Your task to perform on an android device: Open wifi settings Image 0: 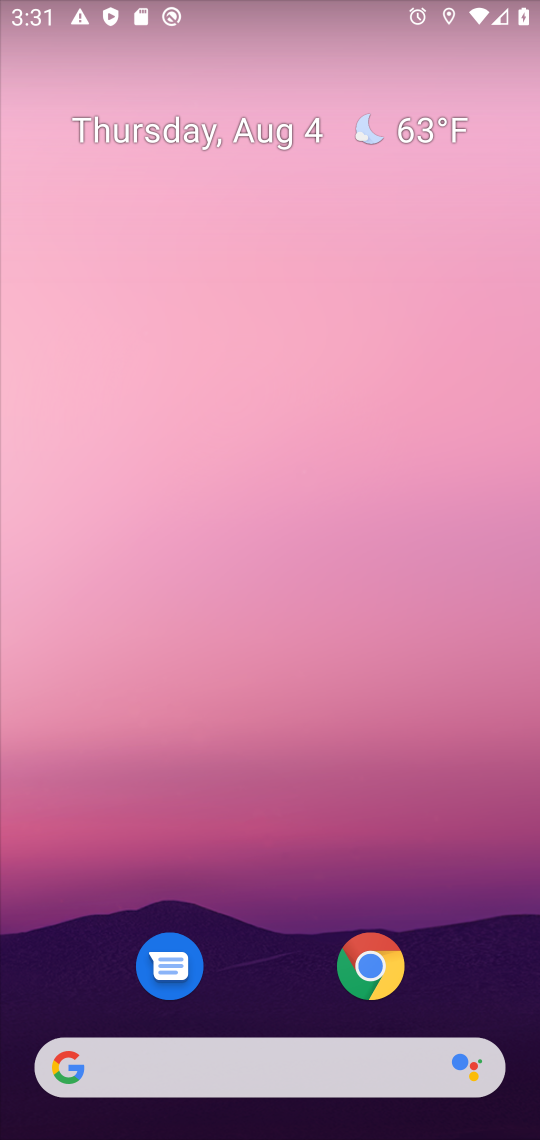
Step 0: press home button
Your task to perform on an android device: Open wifi settings Image 1: 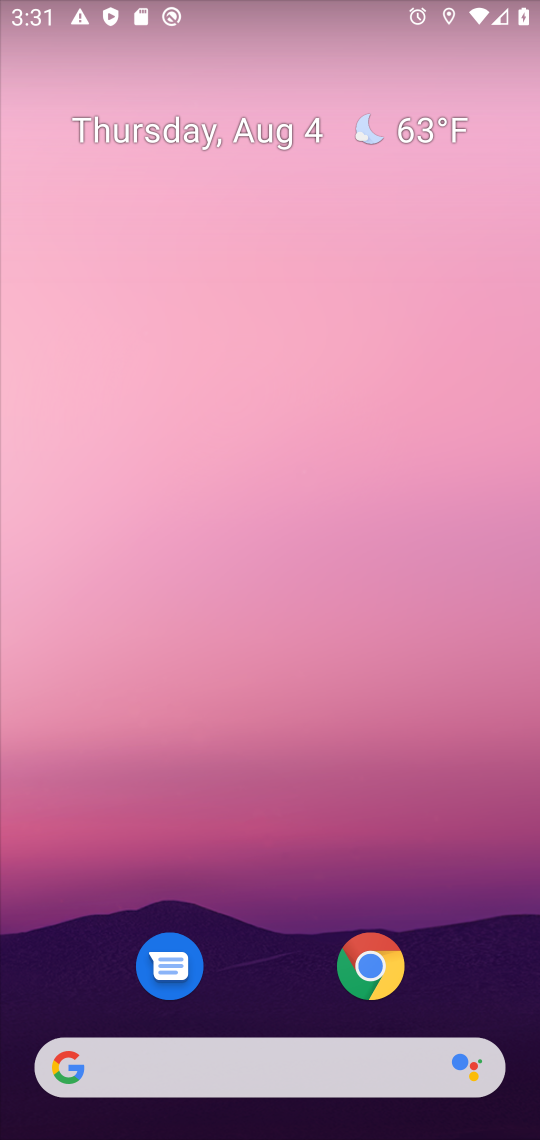
Step 1: drag from (313, 742) to (343, 14)
Your task to perform on an android device: Open wifi settings Image 2: 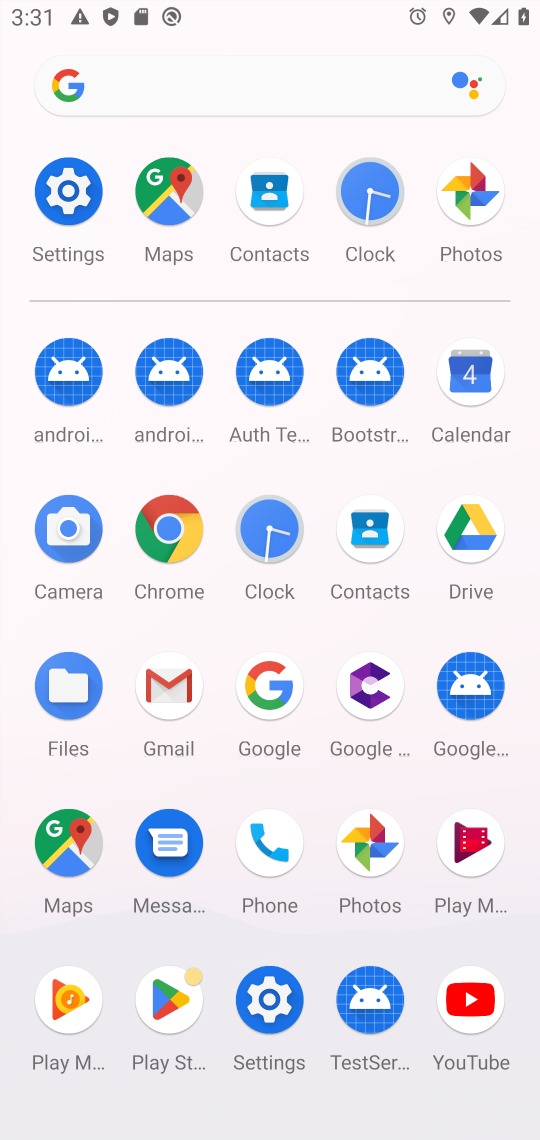
Step 2: click (60, 184)
Your task to perform on an android device: Open wifi settings Image 3: 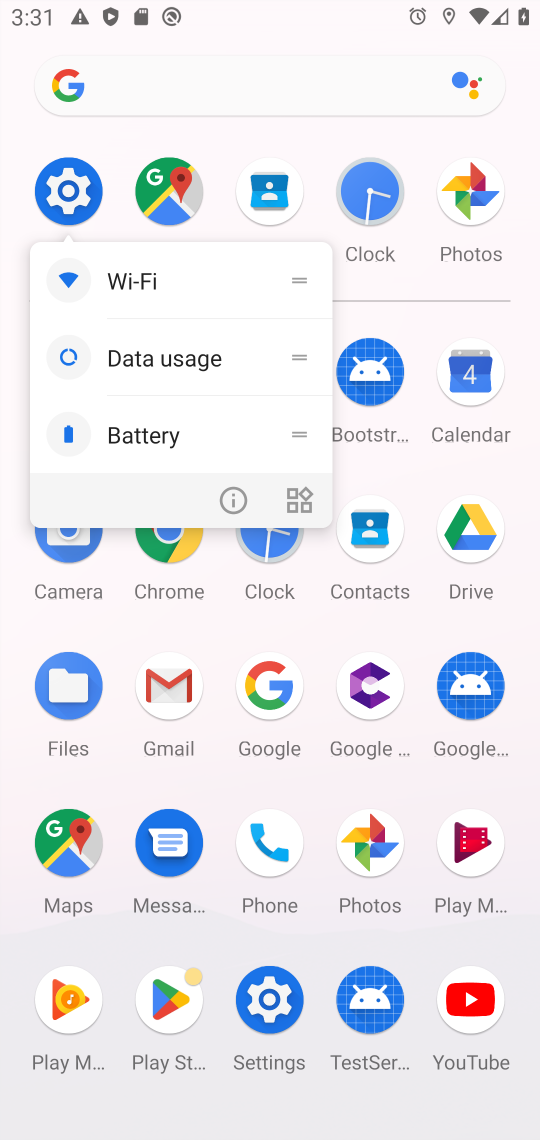
Step 3: click (132, 295)
Your task to perform on an android device: Open wifi settings Image 4: 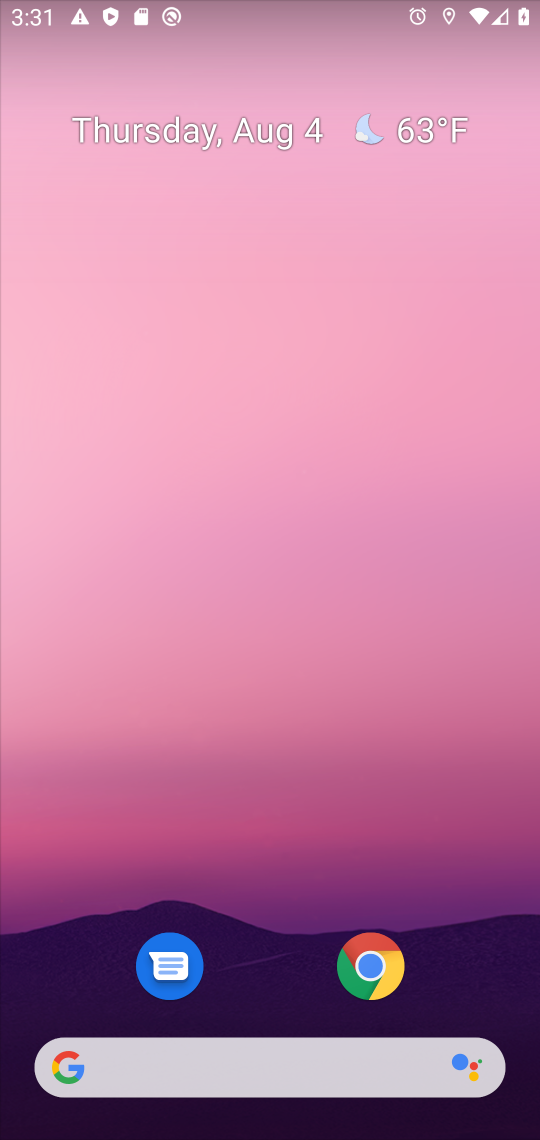
Step 4: drag from (285, 1006) to (326, 16)
Your task to perform on an android device: Open wifi settings Image 5: 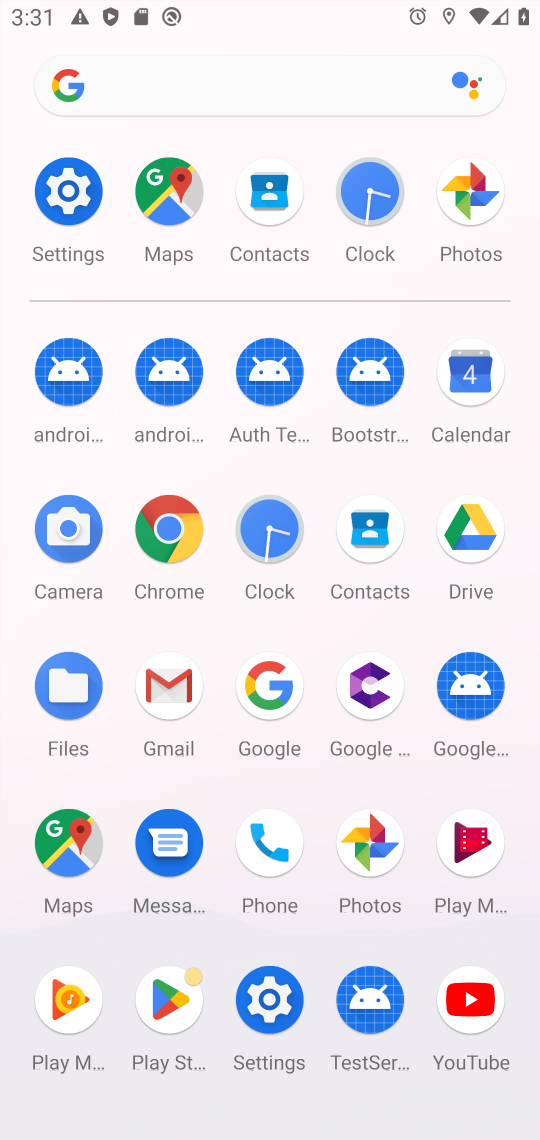
Step 5: click (55, 186)
Your task to perform on an android device: Open wifi settings Image 6: 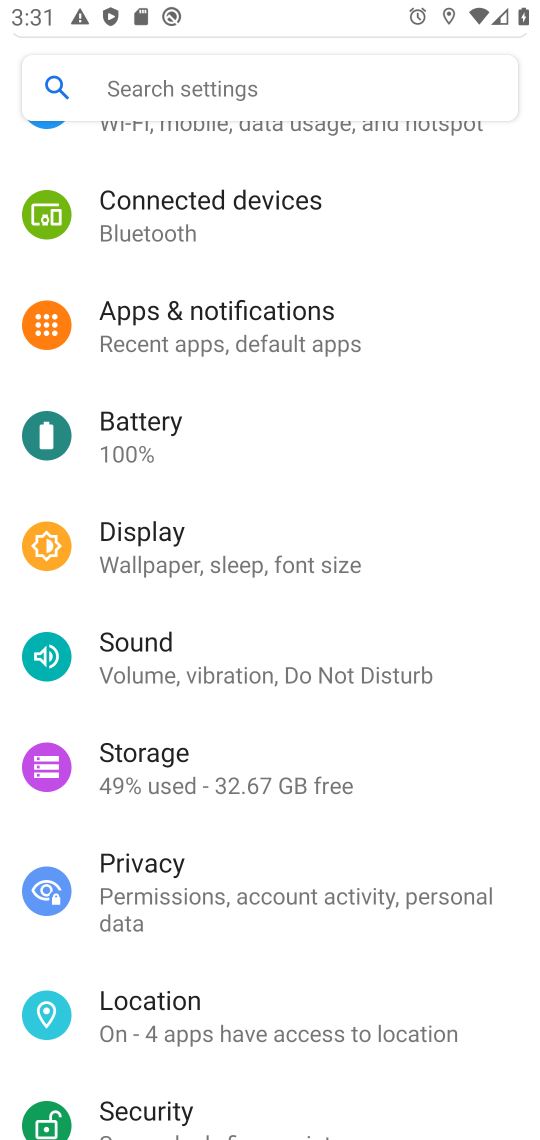
Step 6: click (199, 126)
Your task to perform on an android device: Open wifi settings Image 7: 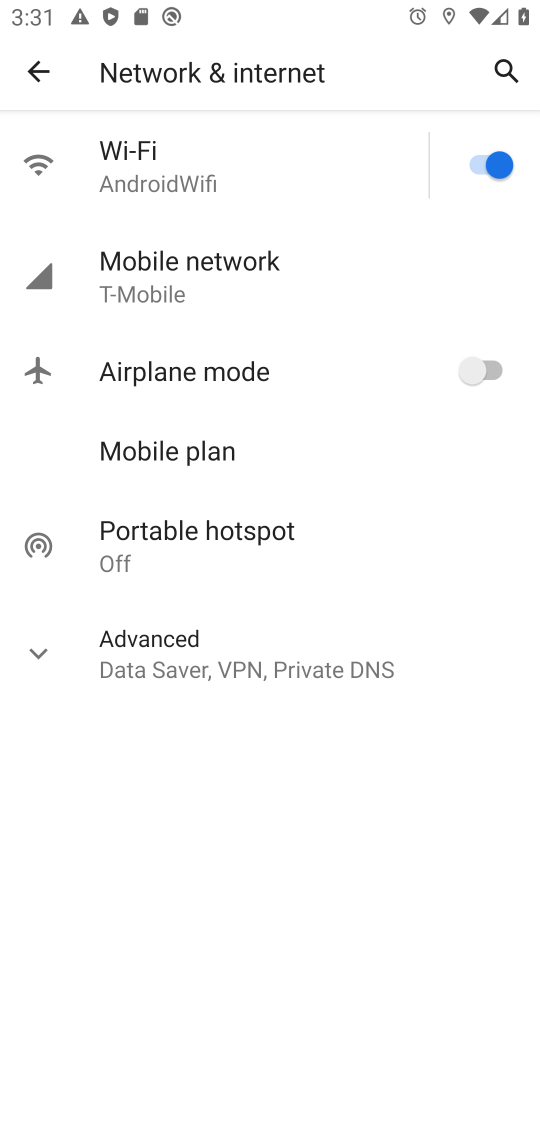
Step 7: click (177, 183)
Your task to perform on an android device: Open wifi settings Image 8: 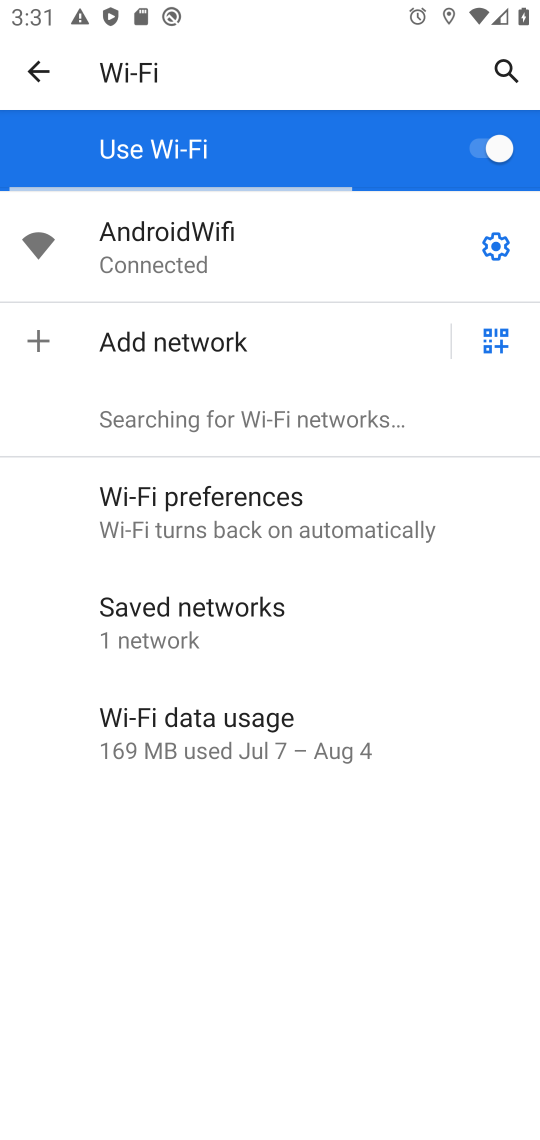
Step 8: click (150, 245)
Your task to perform on an android device: Open wifi settings Image 9: 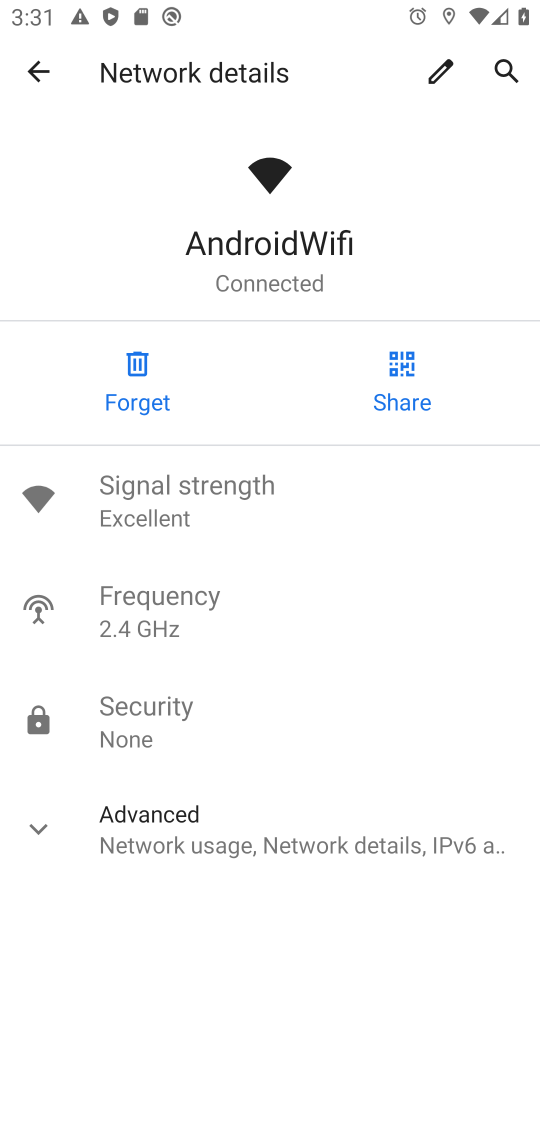
Step 9: task complete